Your task to perform on an android device: change the upload size in google photos Image 0: 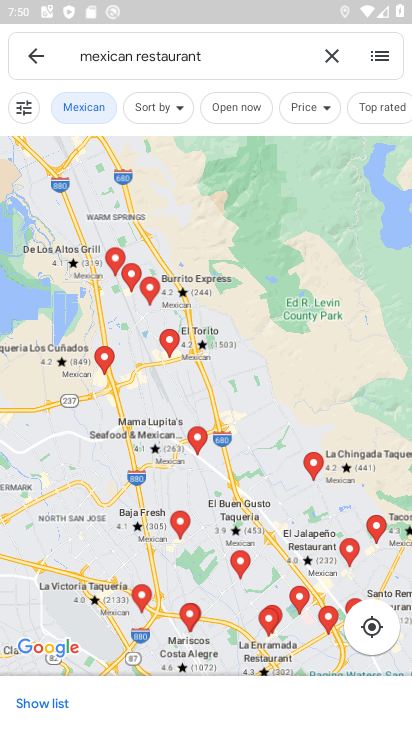
Step 0: press home button
Your task to perform on an android device: change the upload size in google photos Image 1: 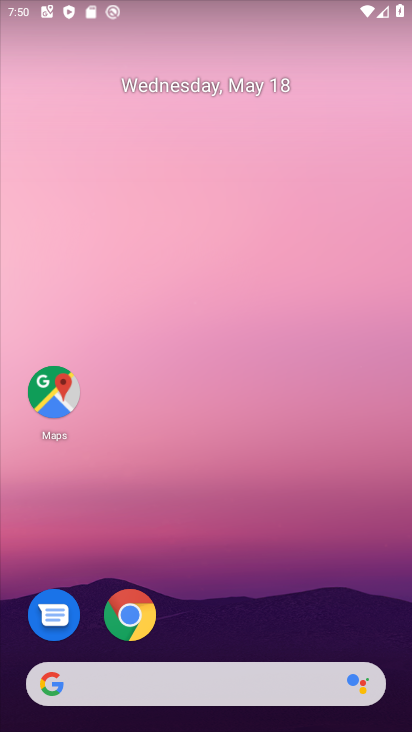
Step 1: drag from (287, 633) to (234, 75)
Your task to perform on an android device: change the upload size in google photos Image 2: 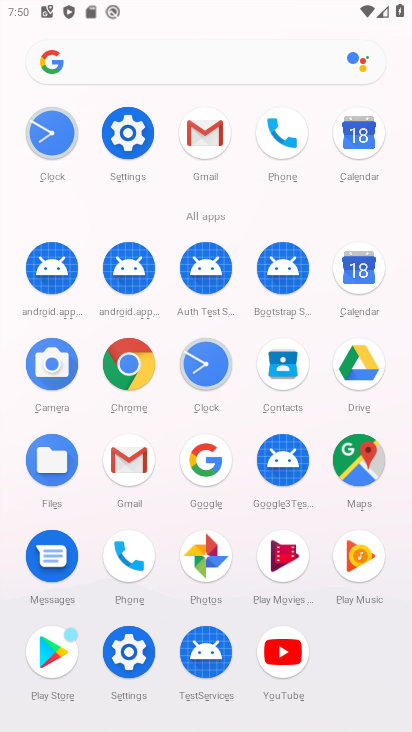
Step 2: drag from (210, 556) to (275, 365)
Your task to perform on an android device: change the upload size in google photos Image 3: 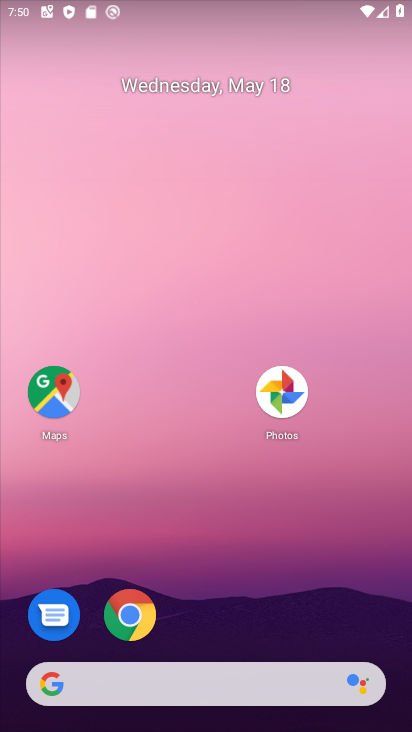
Step 3: click (278, 393)
Your task to perform on an android device: change the upload size in google photos Image 4: 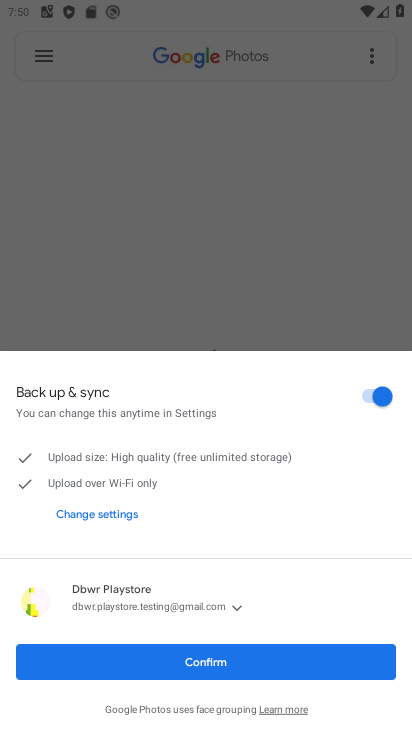
Step 4: click (327, 674)
Your task to perform on an android device: change the upload size in google photos Image 5: 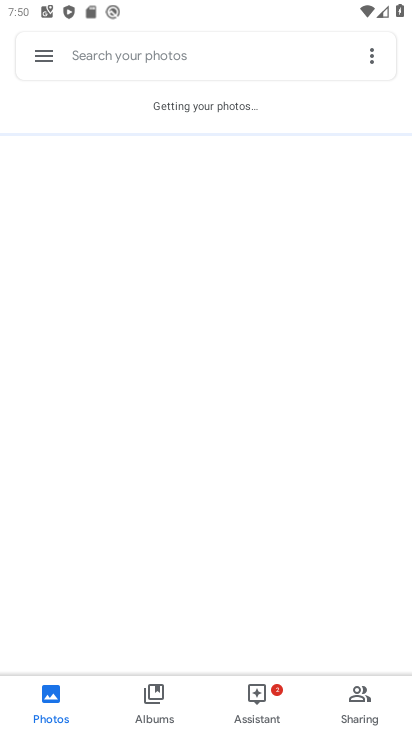
Step 5: click (43, 55)
Your task to perform on an android device: change the upload size in google photos Image 6: 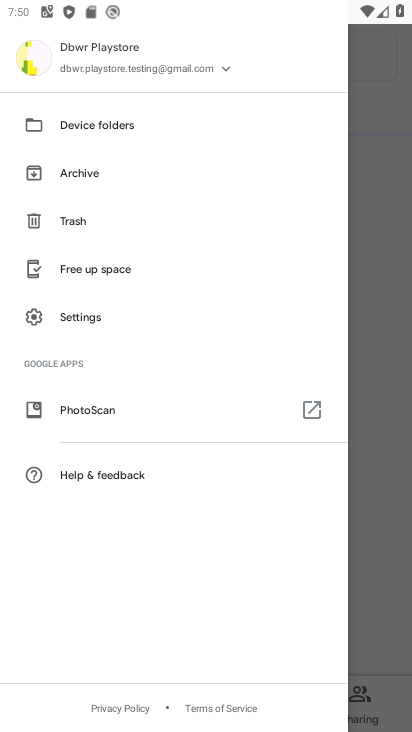
Step 6: click (138, 305)
Your task to perform on an android device: change the upload size in google photos Image 7: 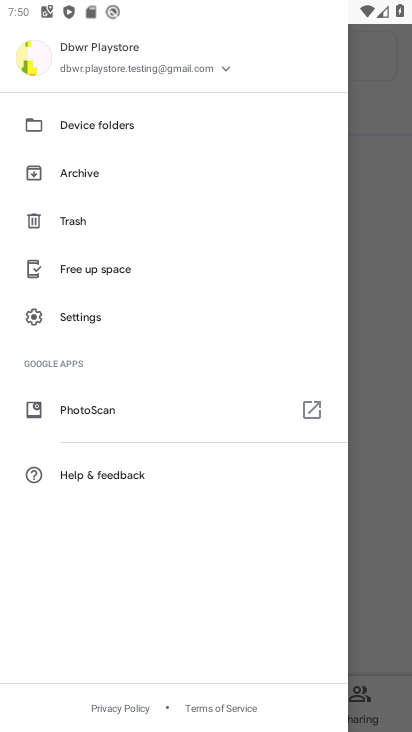
Step 7: click (101, 320)
Your task to perform on an android device: change the upload size in google photos Image 8: 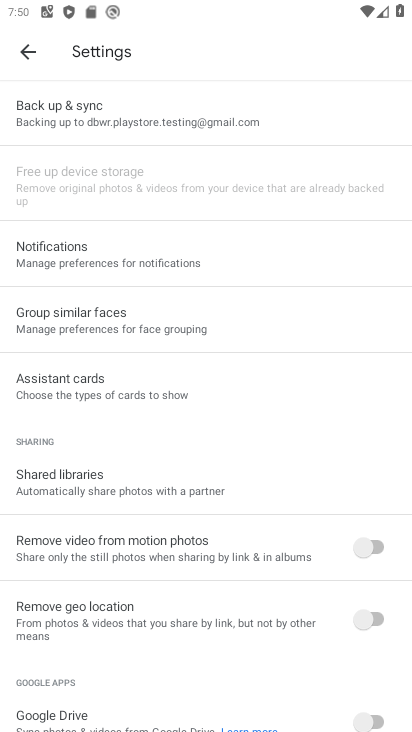
Step 8: click (138, 127)
Your task to perform on an android device: change the upload size in google photos Image 9: 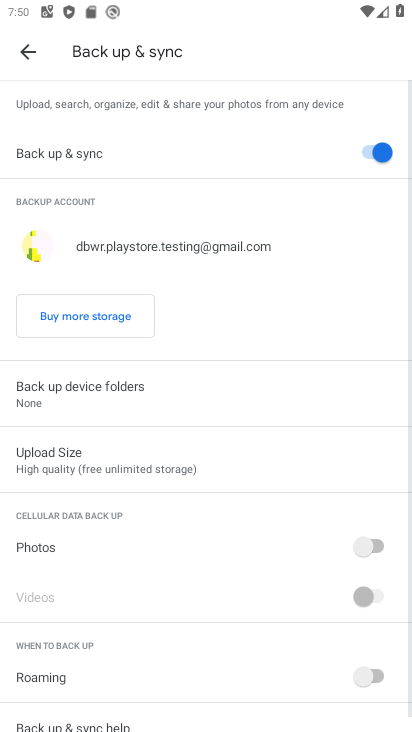
Step 9: click (225, 465)
Your task to perform on an android device: change the upload size in google photos Image 10: 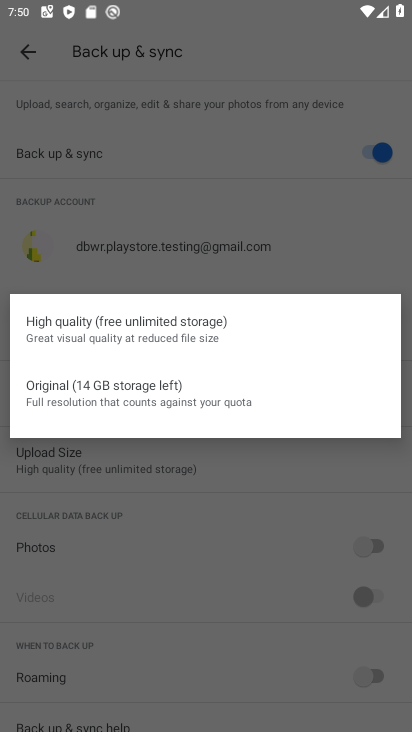
Step 10: click (227, 380)
Your task to perform on an android device: change the upload size in google photos Image 11: 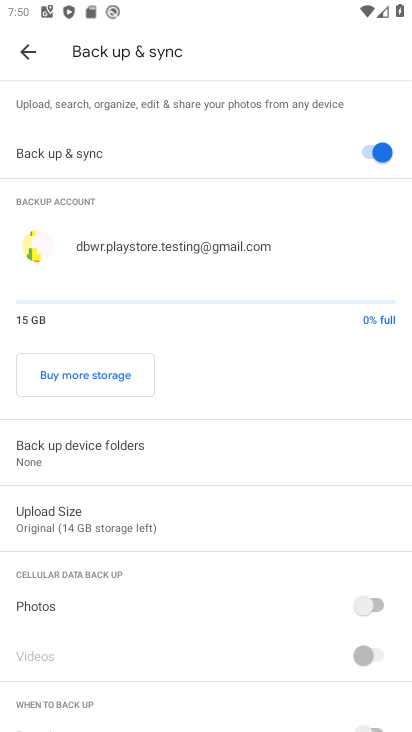
Step 11: task complete